Your task to perform on an android device: turn on the 12-hour format for clock Image 0: 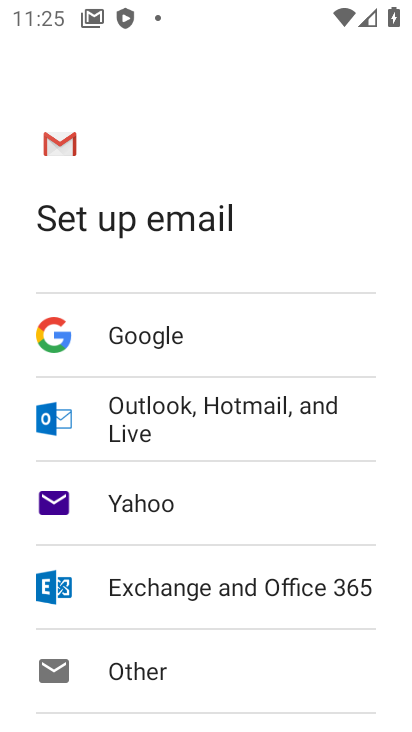
Step 0: press home button
Your task to perform on an android device: turn on the 12-hour format for clock Image 1: 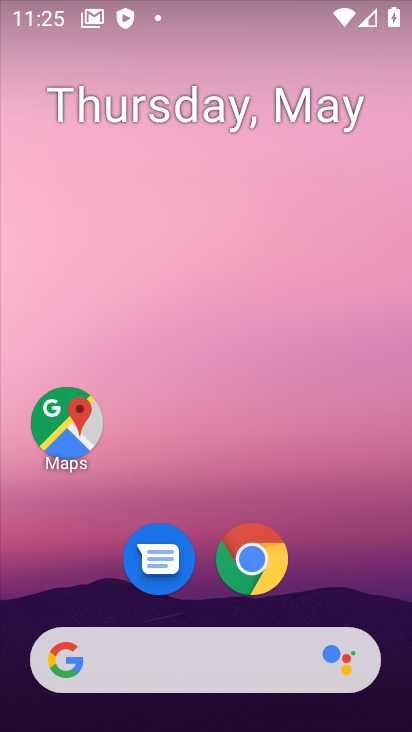
Step 1: drag from (218, 722) to (217, 263)
Your task to perform on an android device: turn on the 12-hour format for clock Image 2: 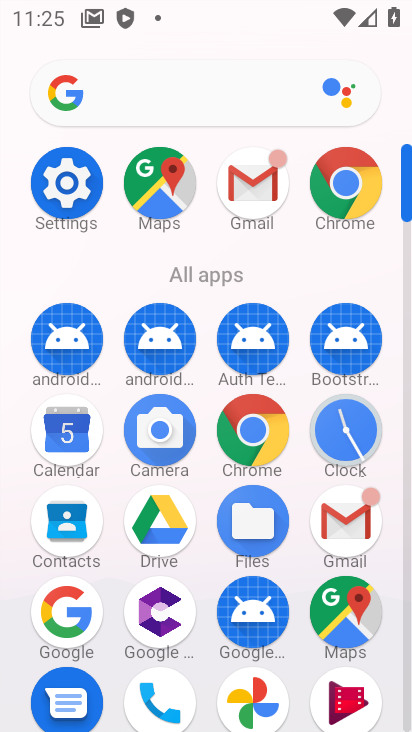
Step 2: click (344, 428)
Your task to perform on an android device: turn on the 12-hour format for clock Image 3: 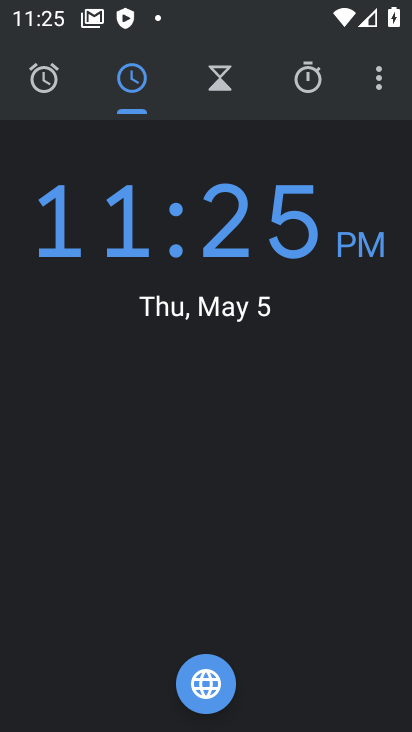
Step 3: click (379, 82)
Your task to perform on an android device: turn on the 12-hour format for clock Image 4: 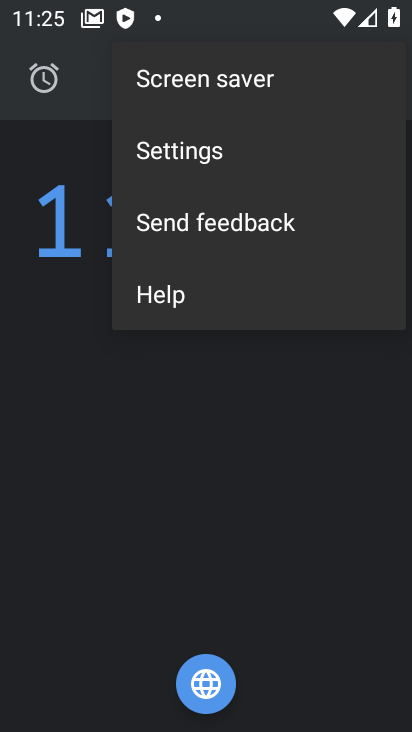
Step 4: click (179, 151)
Your task to perform on an android device: turn on the 12-hour format for clock Image 5: 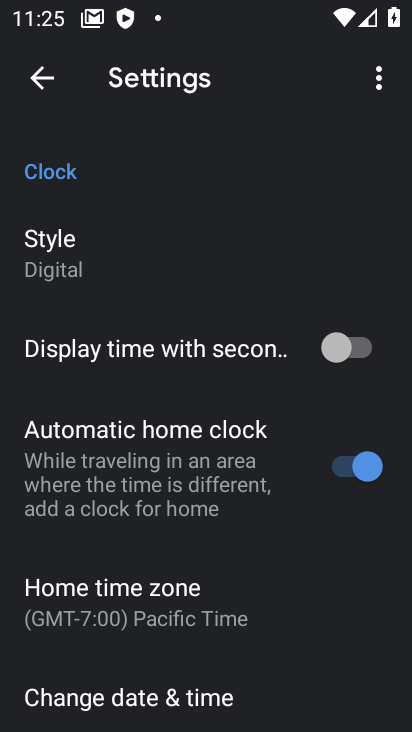
Step 5: drag from (150, 659) to (140, 432)
Your task to perform on an android device: turn on the 12-hour format for clock Image 6: 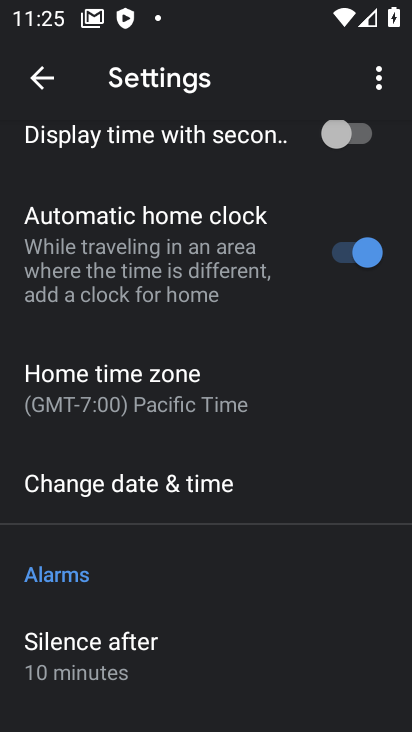
Step 6: click (183, 483)
Your task to perform on an android device: turn on the 12-hour format for clock Image 7: 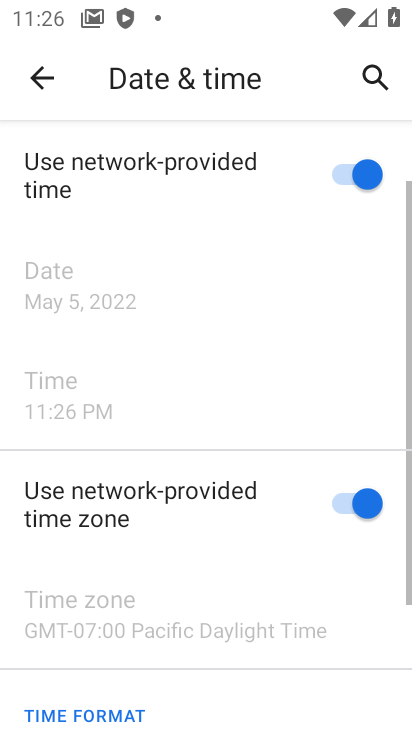
Step 7: task complete